Your task to perform on an android device: allow notifications from all sites in the chrome app Image 0: 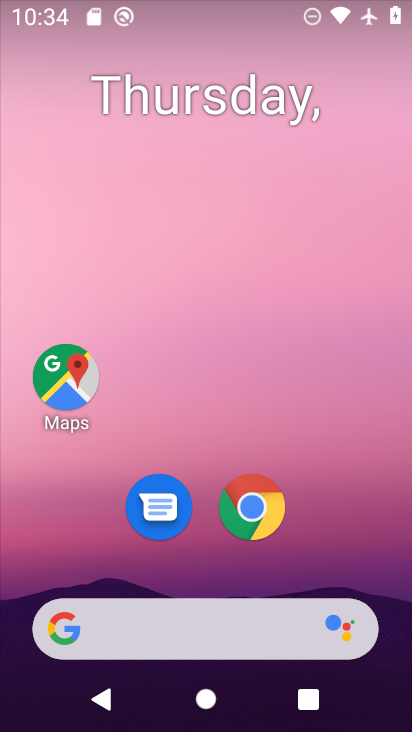
Step 0: drag from (311, 549) to (233, 7)
Your task to perform on an android device: allow notifications from all sites in the chrome app Image 1: 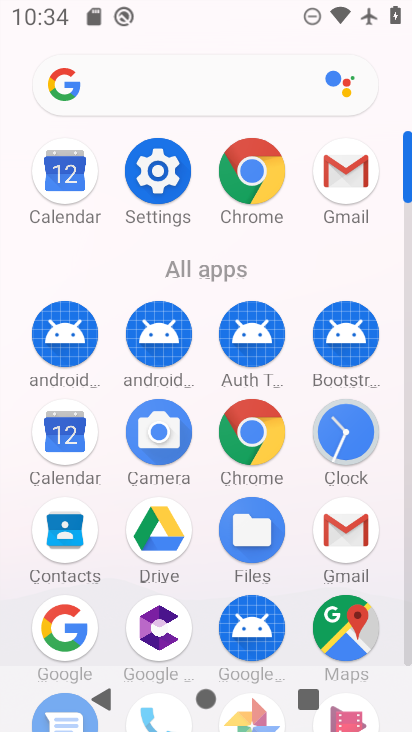
Step 1: drag from (14, 493) to (4, 219)
Your task to perform on an android device: allow notifications from all sites in the chrome app Image 2: 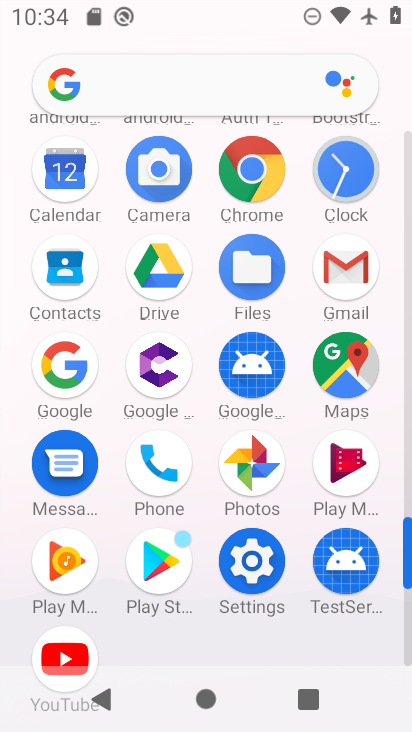
Step 2: click (252, 162)
Your task to perform on an android device: allow notifications from all sites in the chrome app Image 3: 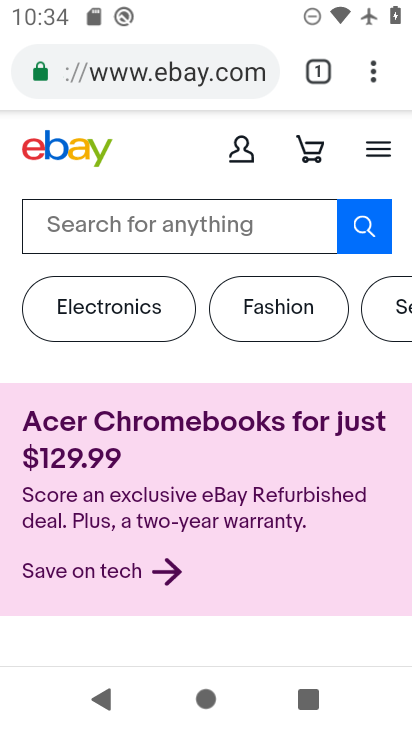
Step 3: drag from (372, 74) to (200, 507)
Your task to perform on an android device: allow notifications from all sites in the chrome app Image 4: 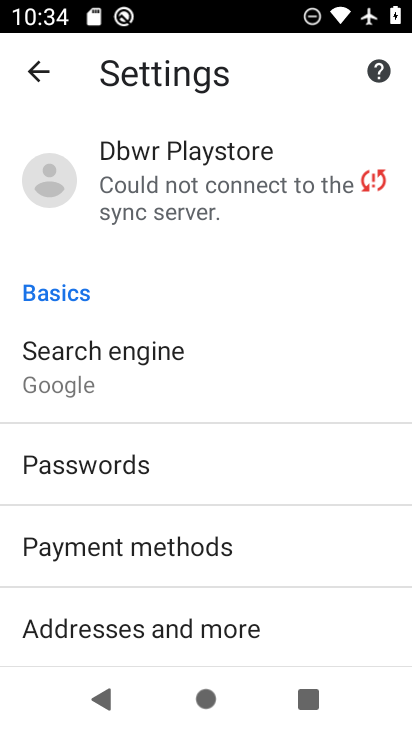
Step 4: drag from (255, 554) to (288, 187)
Your task to perform on an android device: allow notifications from all sites in the chrome app Image 5: 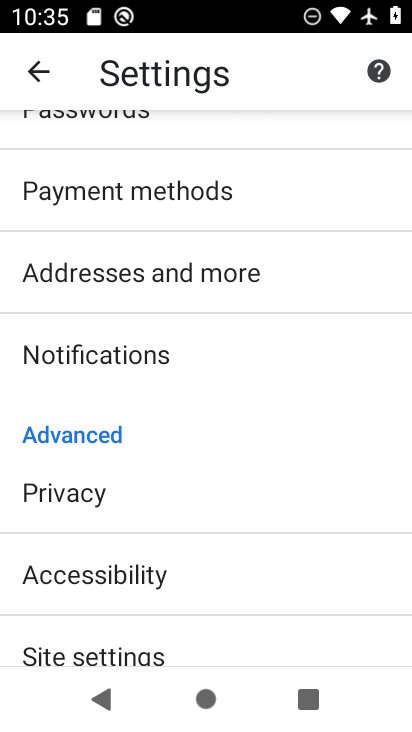
Step 5: click (162, 349)
Your task to perform on an android device: allow notifications from all sites in the chrome app Image 6: 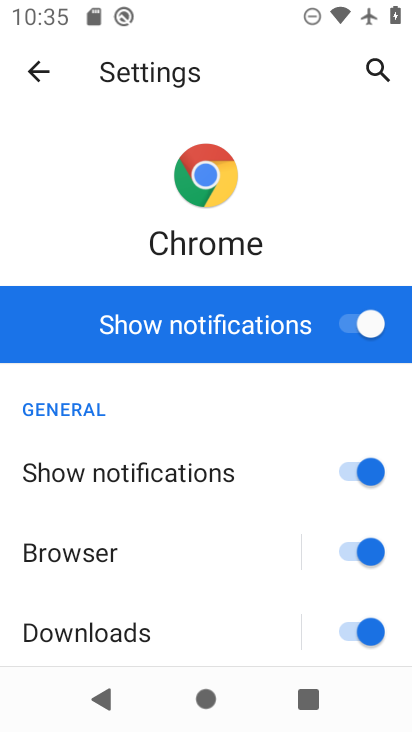
Step 6: click (21, 66)
Your task to perform on an android device: allow notifications from all sites in the chrome app Image 7: 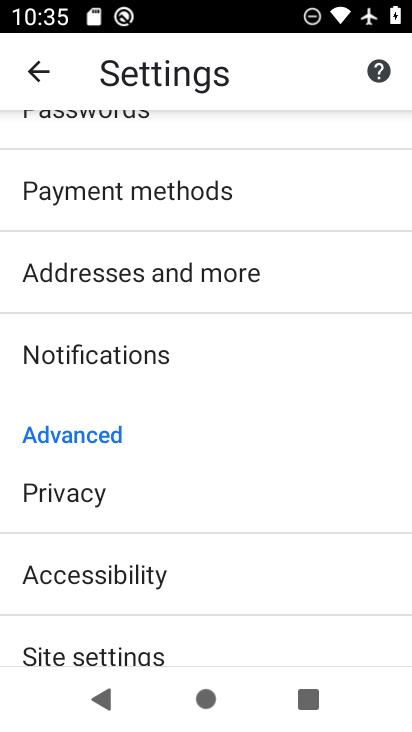
Step 7: click (48, 73)
Your task to perform on an android device: allow notifications from all sites in the chrome app Image 8: 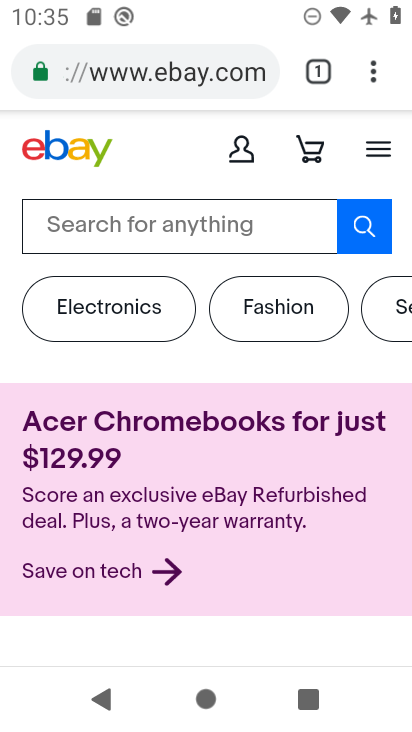
Step 8: drag from (370, 69) to (131, 500)
Your task to perform on an android device: allow notifications from all sites in the chrome app Image 9: 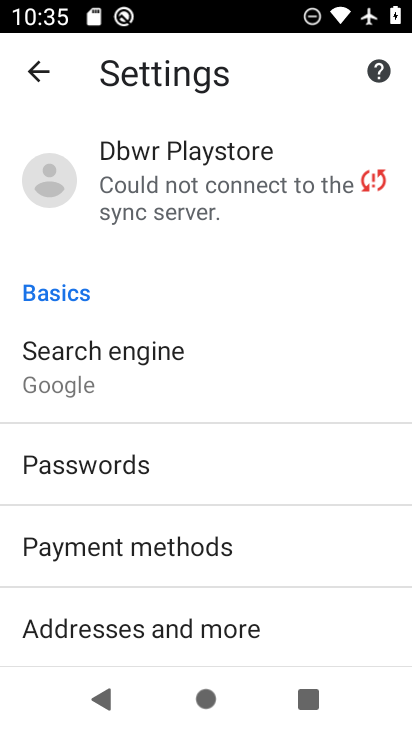
Step 9: drag from (210, 504) to (231, 166)
Your task to perform on an android device: allow notifications from all sites in the chrome app Image 10: 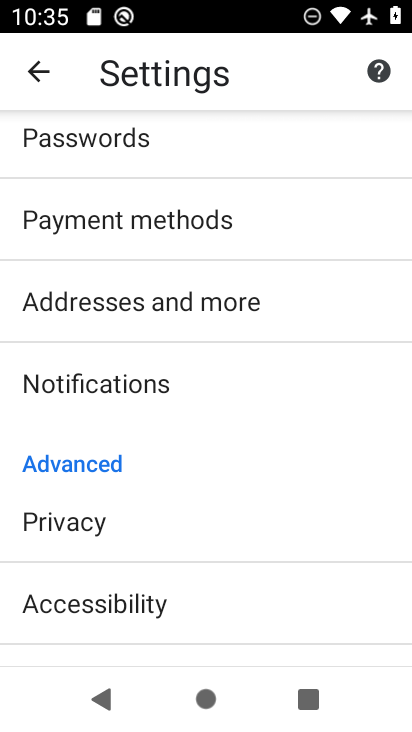
Step 10: drag from (182, 585) to (209, 143)
Your task to perform on an android device: allow notifications from all sites in the chrome app Image 11: 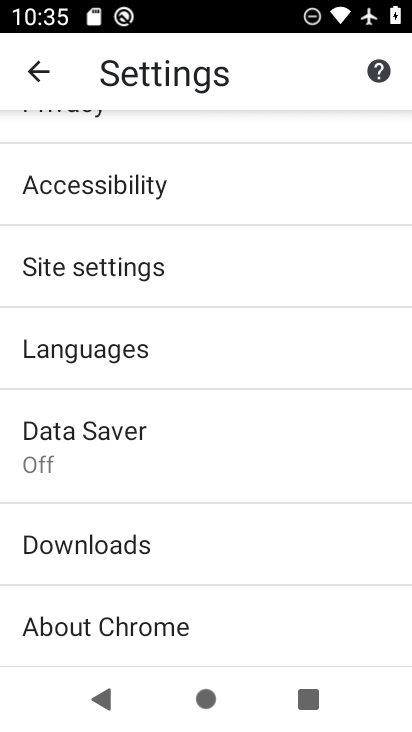
Step 11: click (134, 277)
Your task to perform on an android device: allow notifications from all sites in the chrome app Image 12: 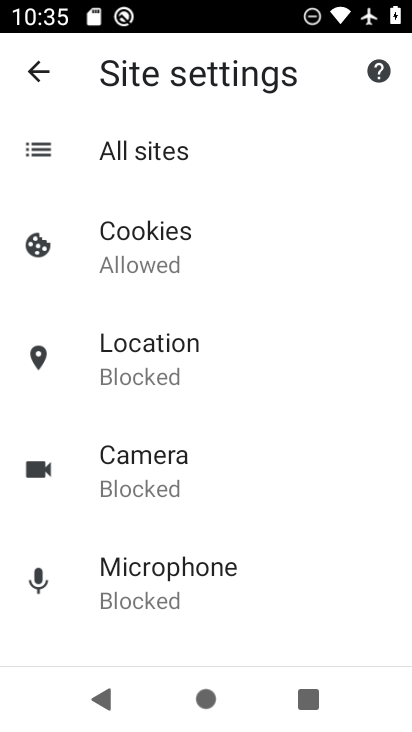
Step 12: drag from (198, 602) to (233, 144)
Your task to perform on an android device: allow notifications from all sites in the chrome app Image 13: 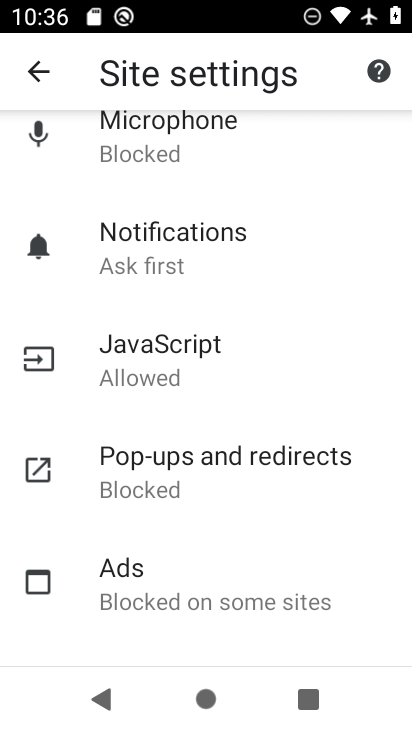
Step 13: drag from (280, 494) to (305, 152)
Your task to perform on an android device: allow notifications from all sites in the chrome app Image 14: 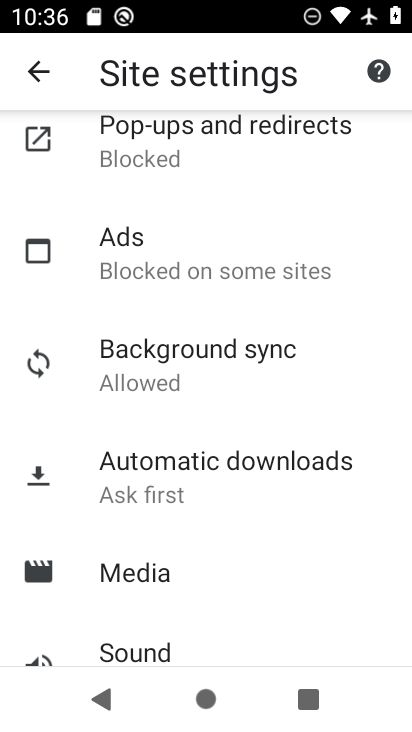
Step 14: drag from (301, 226) to (281, 606)
Your task to perform on an android device: allow notifications from all sites in the chrome app Image 15: 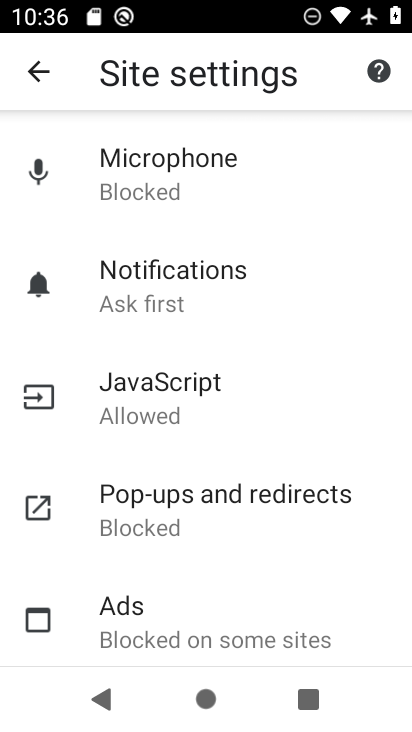
Step 15: drag from (242, 217) to (242, 382)
Your task to perform on an android device: allow notifications from all sites in the chrome app Image 16: 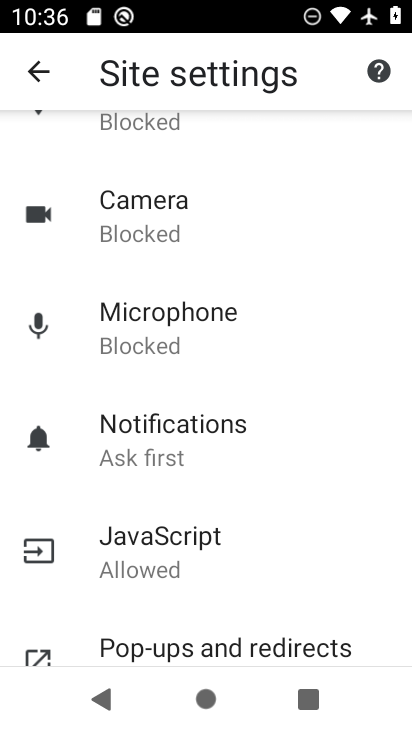
Step 16: click (209, 440)
Your task to perform on an android device: allow notifications from all sites in the chrome app Image 17: 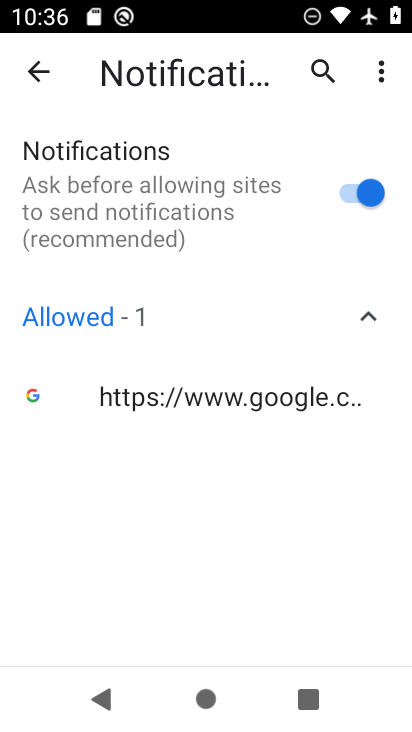
Step 17: task complete